Your task to perform on an android device: snooze an email in the gmail app Image 0: 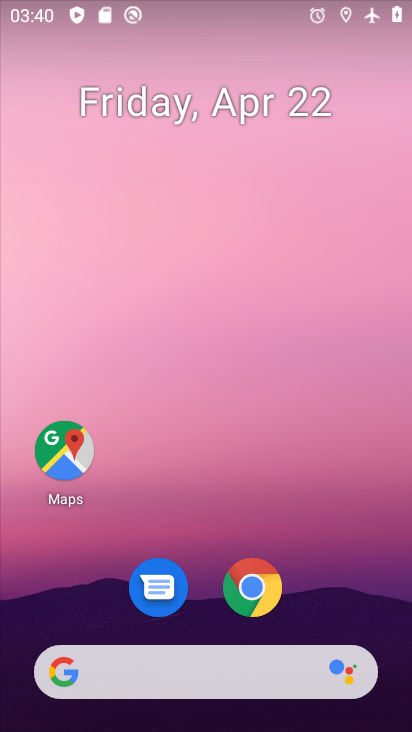
Step 0: drag from (233, 371) to (227, 27)
Your task to perform on an android device: snooze an email in the gmail app Image 1: 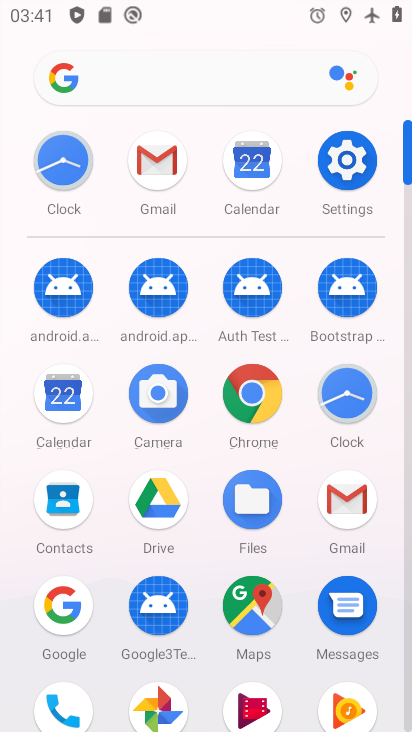
Step 1: click (155, 163)
Your task to perform on an android device: snooze an email in the gmail app Image 2: 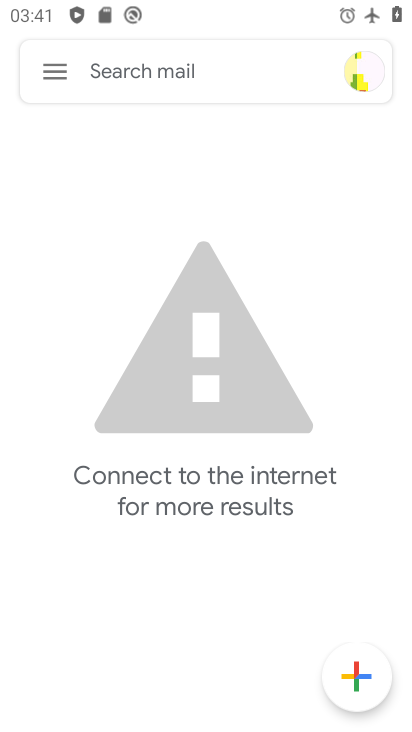
Step 2: click (61, 78)
Your task to perform on an android device: snooze an email in the gmail app Image 3: 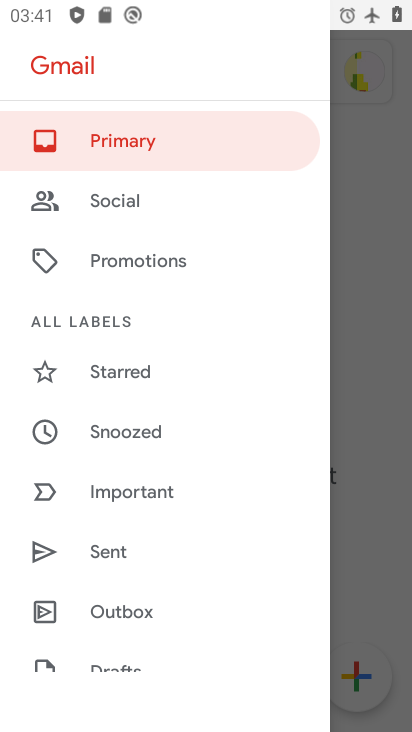
Step 3: drag from (96, 569) to (117, 417)
Your task to perform on an android device: snooze an email in the gmail app Image 4: 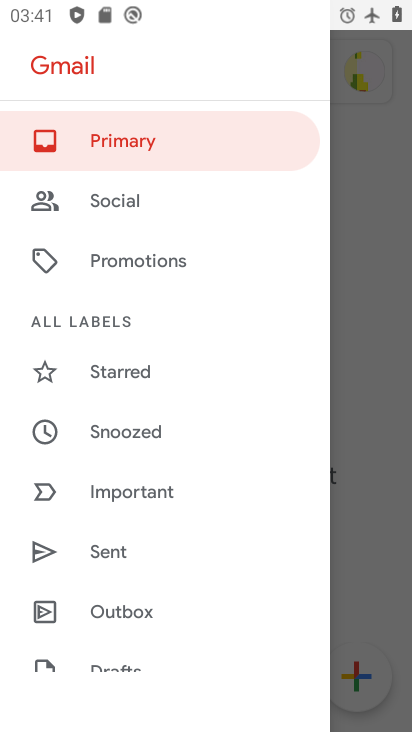
Step 4: click (118, 421)
Your task to perform on an android device: snooze an email in the gmail app Image 5: 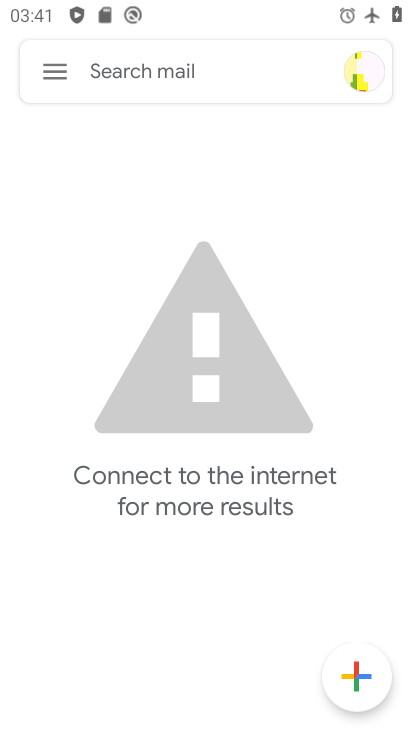
Step 5: task complete